Your task to perform on an android device: toggle data saver in the chrome app Image 0: 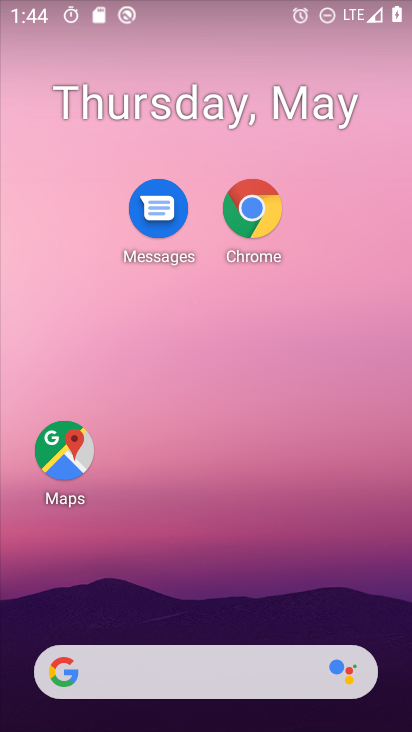
Step 0: click (250, 255)
Your task to perform on an android device: toggle data saver in the chrome app Image 1: 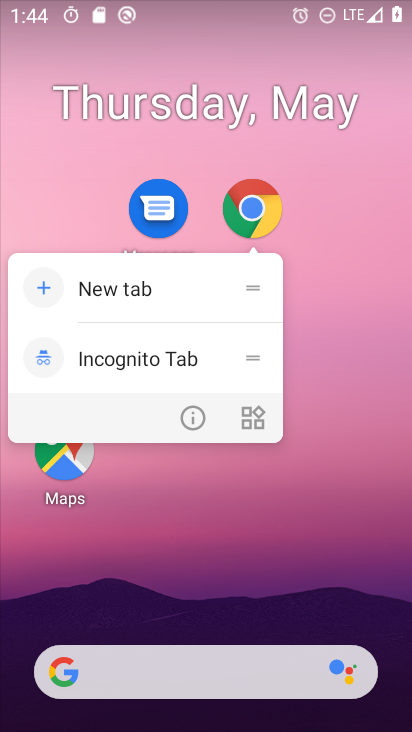
Step 1: click (230, 217)
Your task to perform on an android device: toggle data saver in the chrome app Image 2: 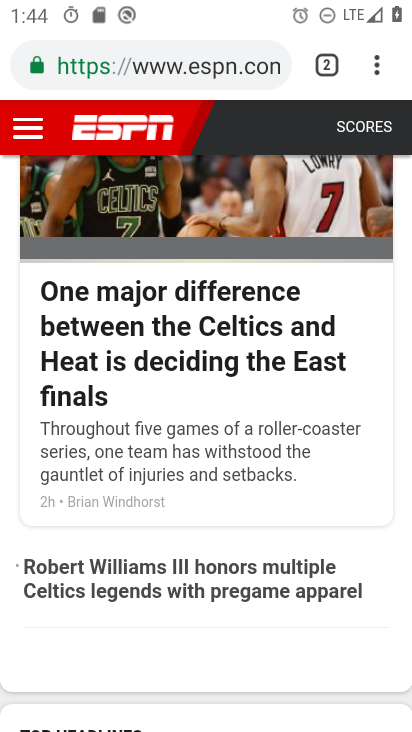
Step 2: click (372, 60)
Your task to perform on an android device: toggle data saver in the chrome app Image 3: 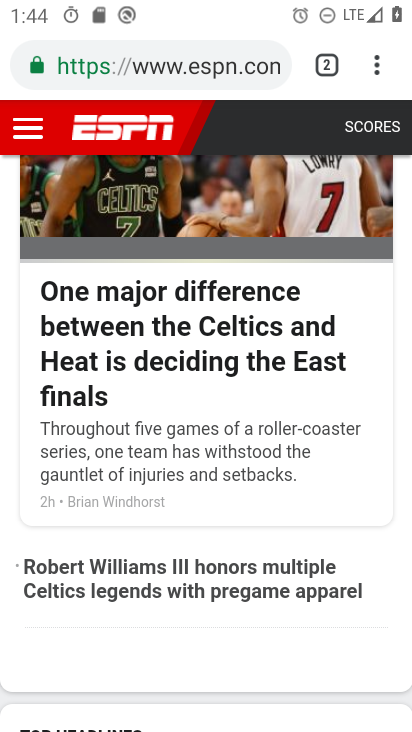
Step 3: click (380, 69)
Your task to perform on an android device: toggle data saver in the chrome app Image 4: 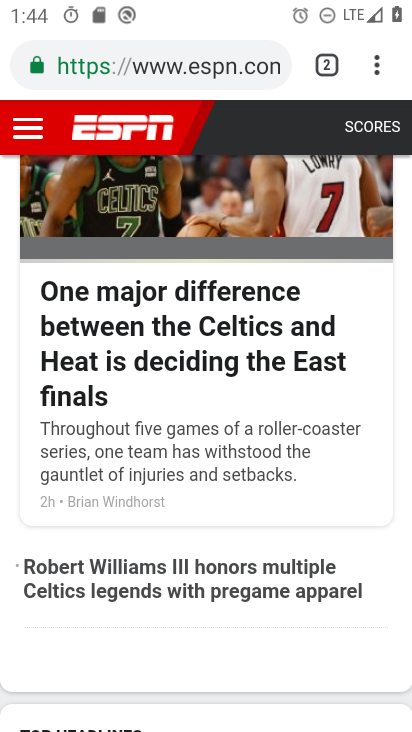
Step 4: click (374, 72)
Your task to perform on an android device: toggle data saver in the chrome app Image 5: 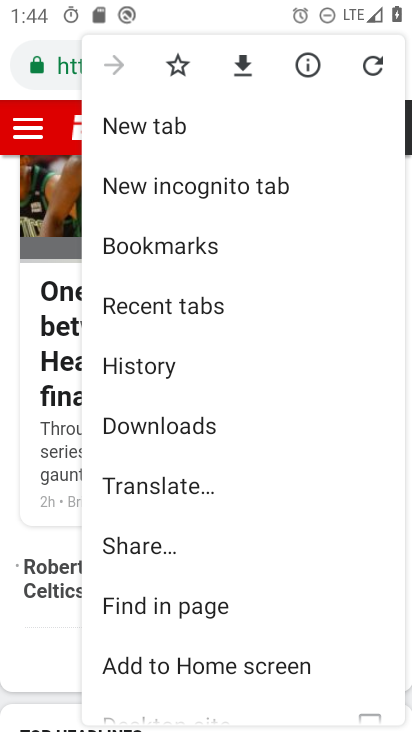
Step 5: drag from (170, 633) to (176, 401)
Your task to perform on an android device: toggle data saver in the chrome app Image 6: 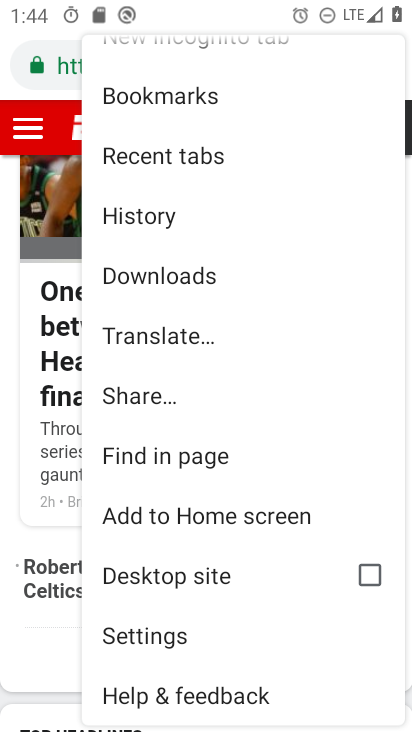
Step 6: click (155, 639)
Your task to perform on an android device: toggle data saver in the chrome app Image 7: 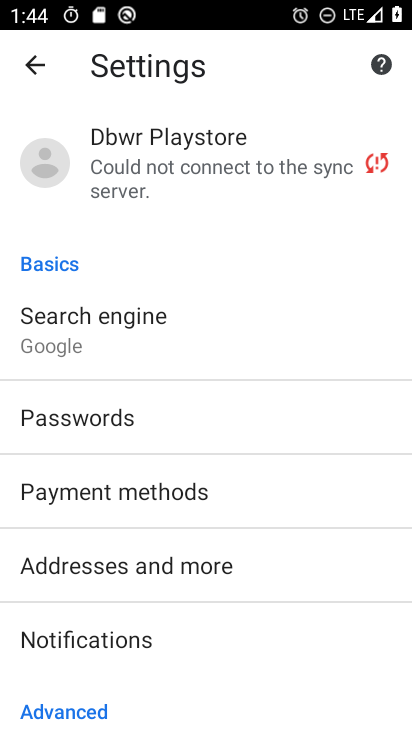
Step 7: drag from (147, 618) to (136, 311)
Your task to perform on an android device: toggle data saver in the chrome app Image 8: 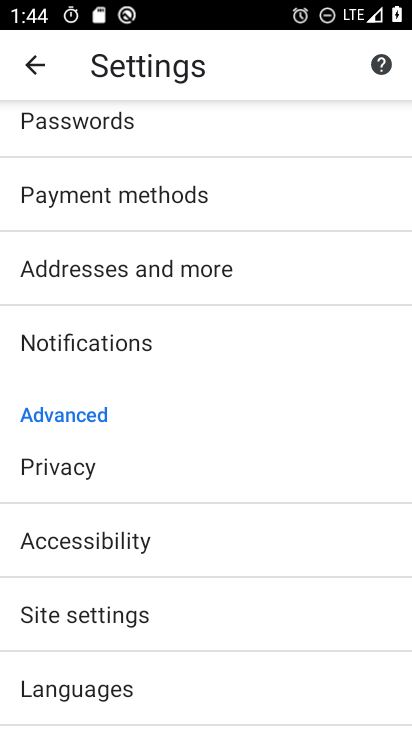
Step 8: drag from (128, 667) to (117, 482)
Your task to perform on an android device: toggle data saver in the chrome app Image 9: 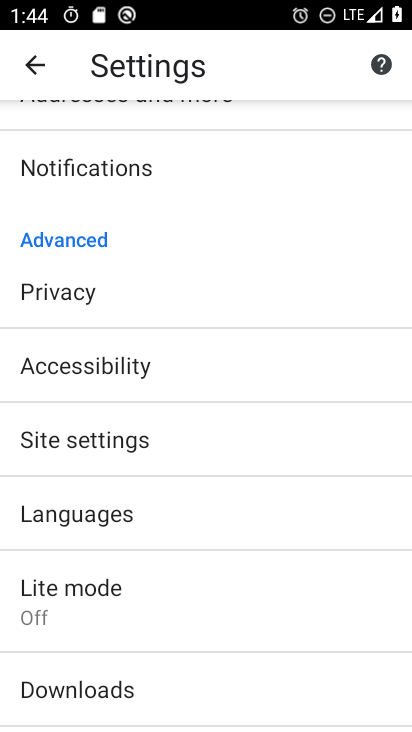
Step 9: click (108, 611)
Your task to perform on an android device: toggle data saver in the chrome app Image 10: 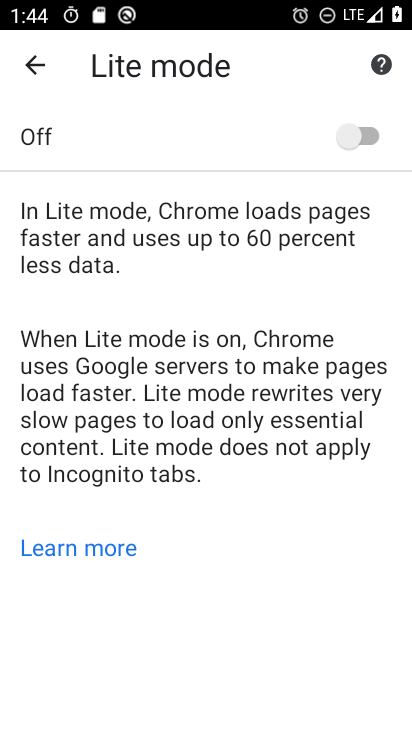
Step 10: click (369, 136)
Your task to perform on an android device: toggle data saver in the chrome app Image 11: 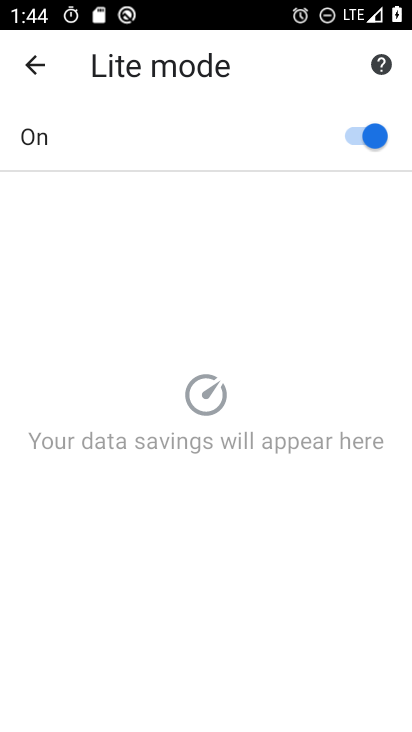
Step 11: task complete